Your task to perform on an android device: Open notification settings Image 0: 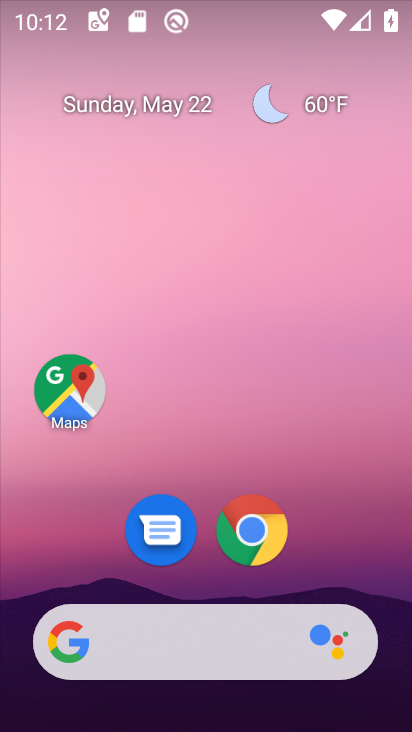
Step 0: drag from (398, 639) to (381, 222)
Your task to perform on an android device: Open notification settings Image 1: 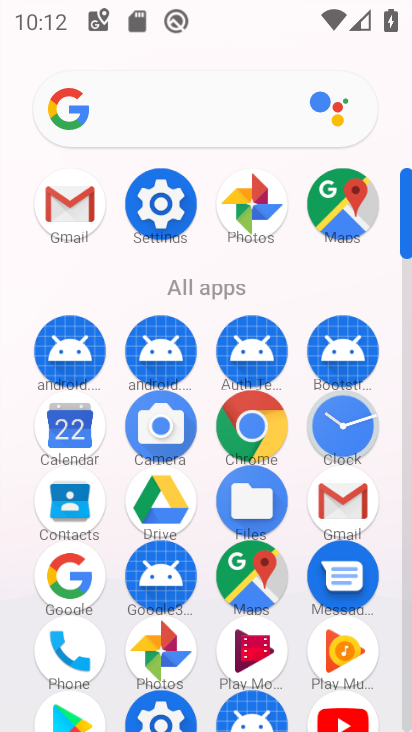
Step 1: click (153, 203)
Your task to perform on an android device: Open notification settings Image 2: 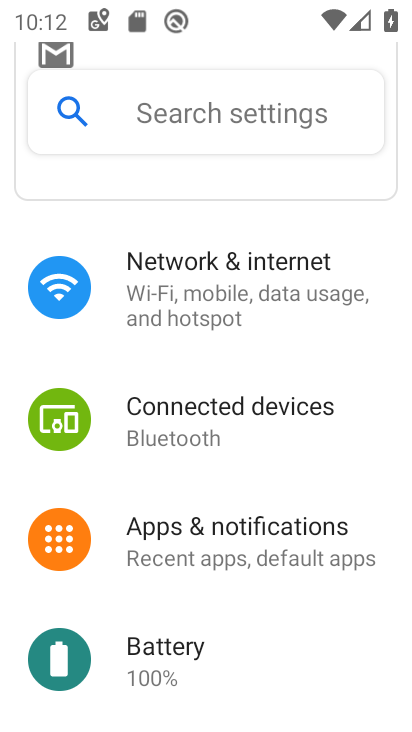
Step 2: click (209, 553)
Your task to perform on an android device: Open notification settings Image 3: 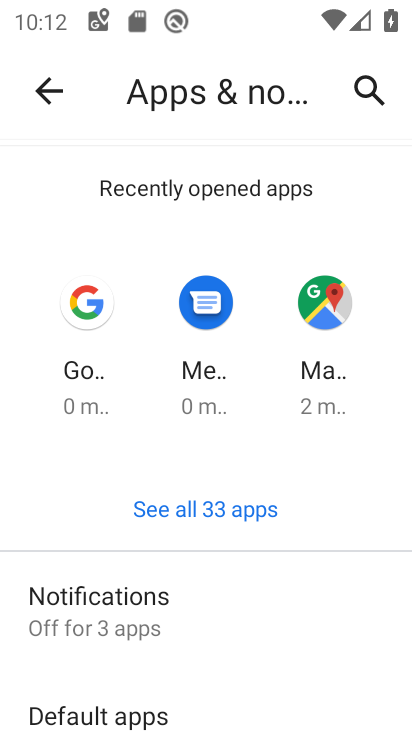
Step 3: click (106, 617)
Your task to perform on an android device: Open notification settings Image 4: 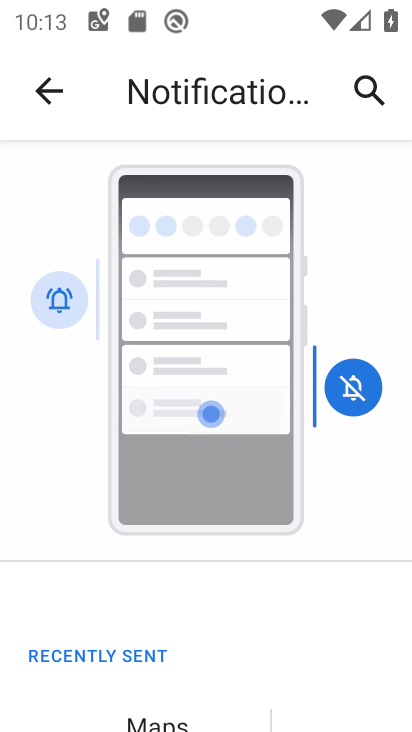
Step 4: drag from (280, 701) to (283, 188)
Your task to perform on an android device: Open notification settings Image 5: 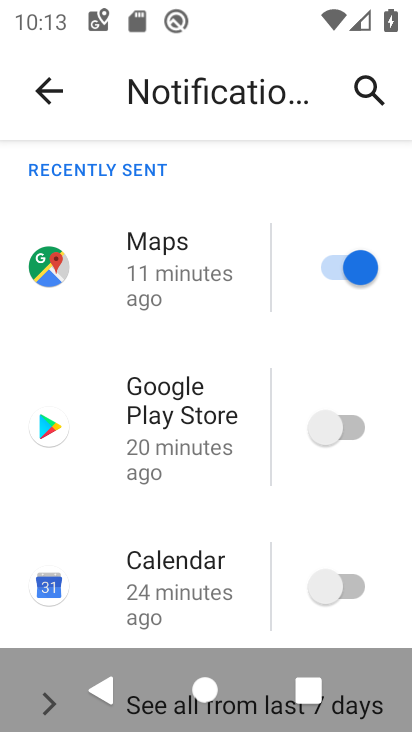
Step 5: drag from (252, 621) to (242, 211)
Your task to perform on an android device: Open notification settings Image 6: 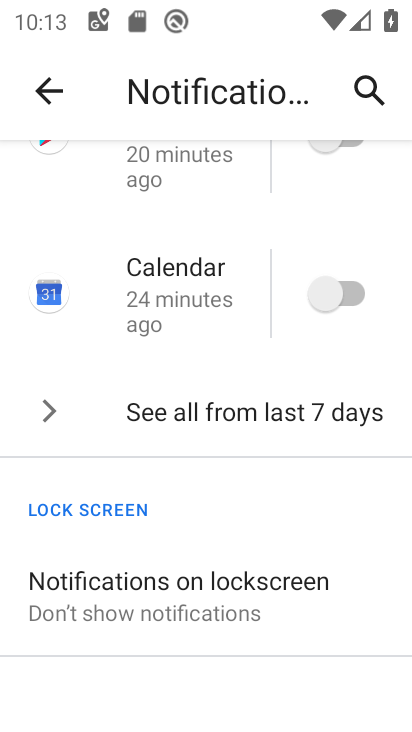
Step 6: drag from (297, 688) to (295, 283)
Your task to perform on an android device: Open notification settings Image 7: 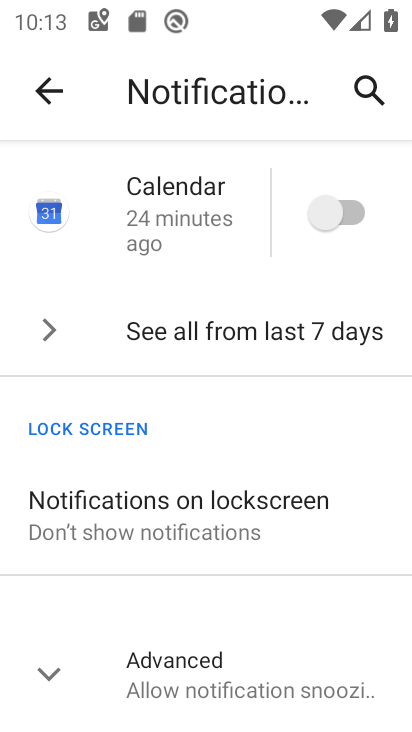
Step 7: click (54, 676)
Your task to perform on an android device: Open notification settings Image 8: 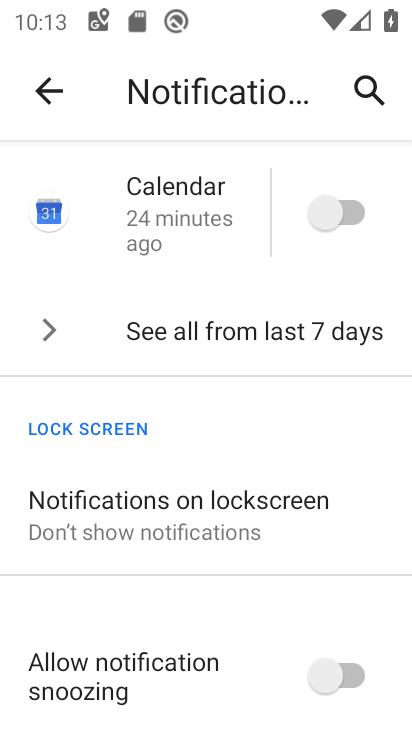
Step 8: task complete